Your task to perform on an android device: Open the calendar and show me this week's events? Image 0: 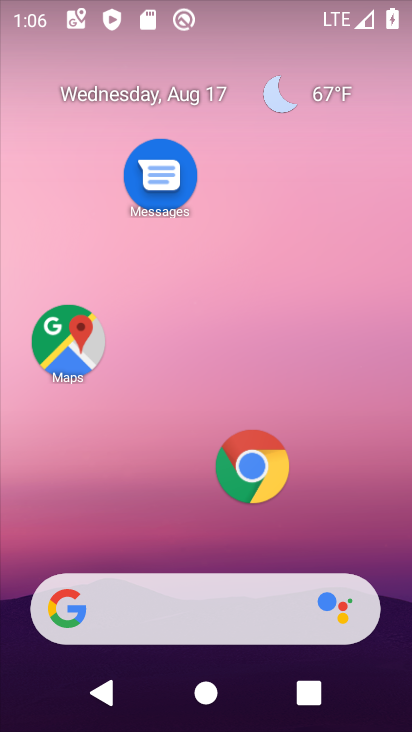
Step 0: drag from (180, 532) to (137, 170)
Your task to perform on an android device: Open the calendar and show me this week's events? Image 1: 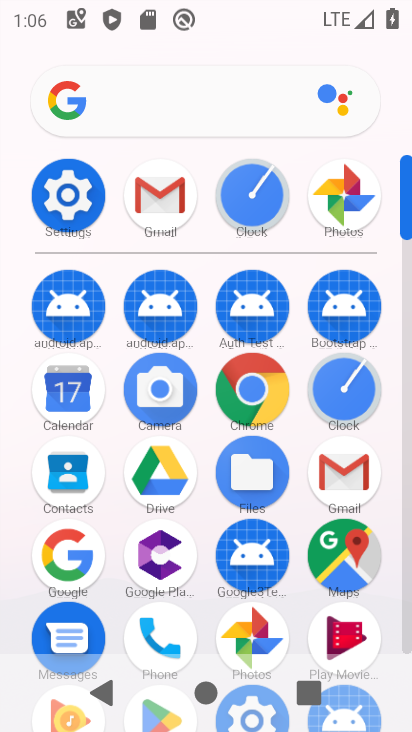
Step 1: click (62, 406)
Your task to perform on an android device: Open the calendar and show me this week's events? Image 2: 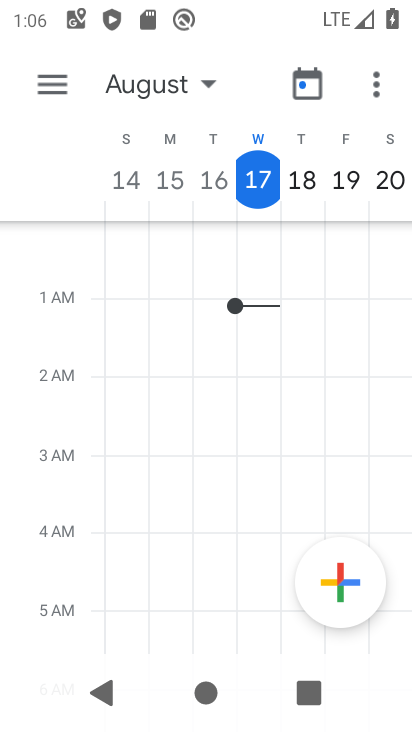
Step 2: task complete